Your task to perform on an android device: Do I have any events this weekend? Image 0: 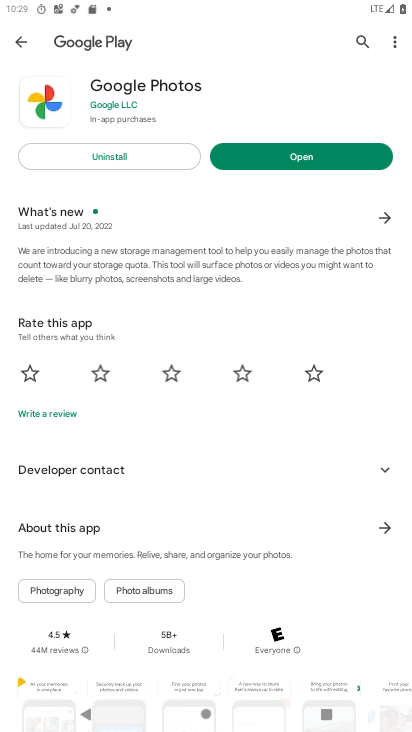
Step 0: press home button
Your task to perform on an android device: Do I have any events this weekend? Image 1: 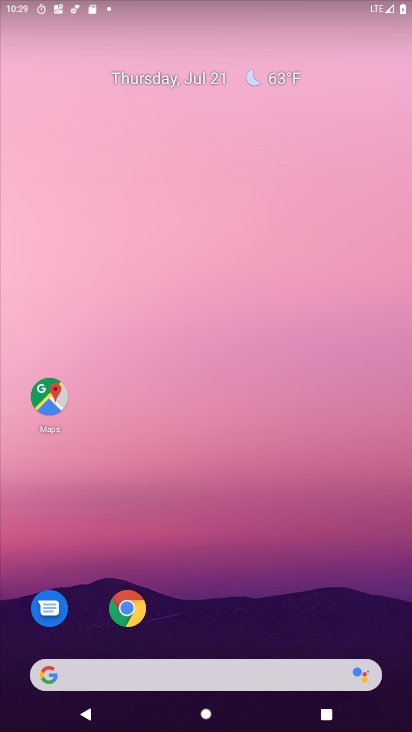
Step 1: drag from (213, 653) to (285, 179)
Your task to perform on an android device: Do I have any events this weekend? Image 2: 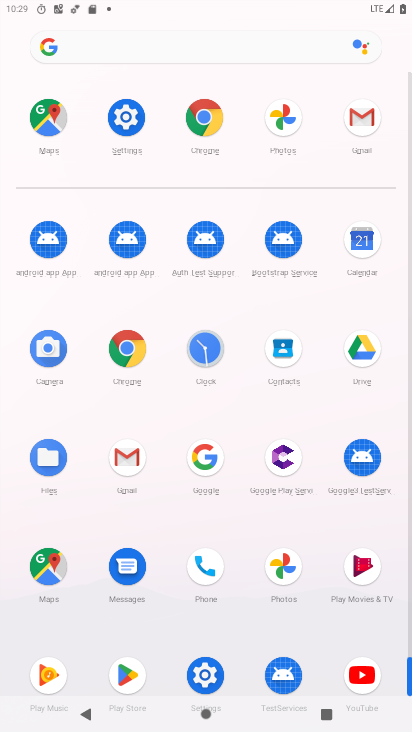
Step 2: click (369, 239)
Your task to perform on an android device: Do I have any events this weekend? Image 3: 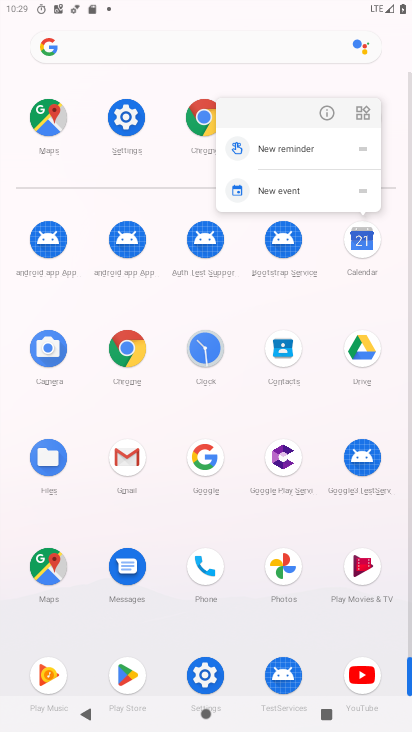
Step 3: click (370, 269)
Your task to perform on an android device: Do I have any events this weekend? Image 4: 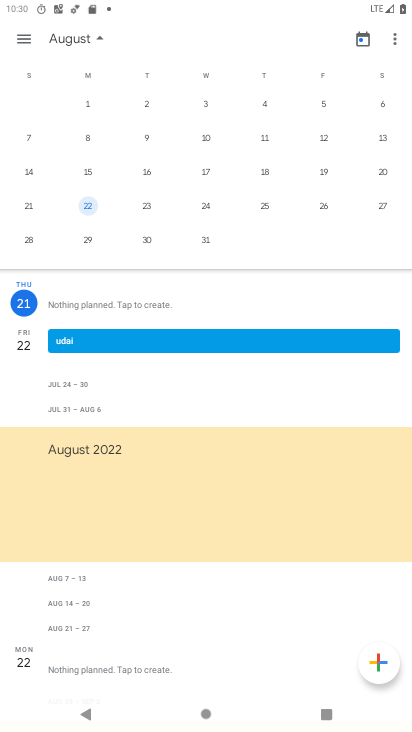
Step 4: drag from (77, 195) to (406, 178)
Your task to perform on an android device: Do I have any events this weekend? Image 5: 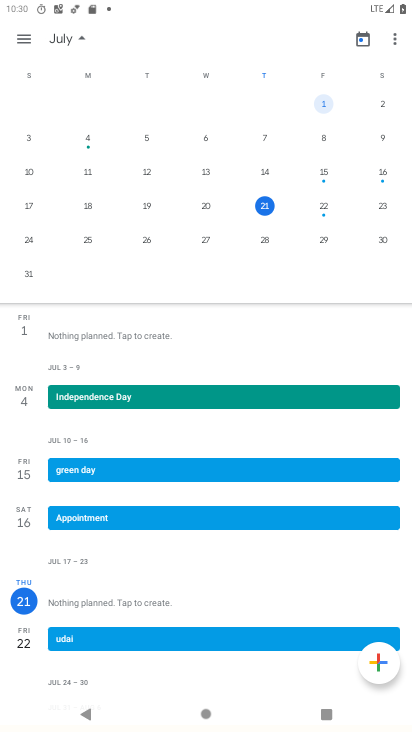
Step 5: click (321, 213)
Your task to perform on an android device: Do I have any events this weekend? Image 6: 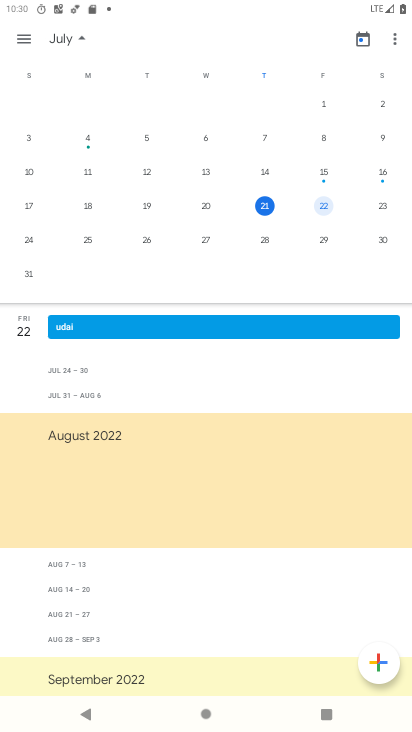
Step 6: task complete